Your task to perform on an android device: star an email in the gmail app Image 0: 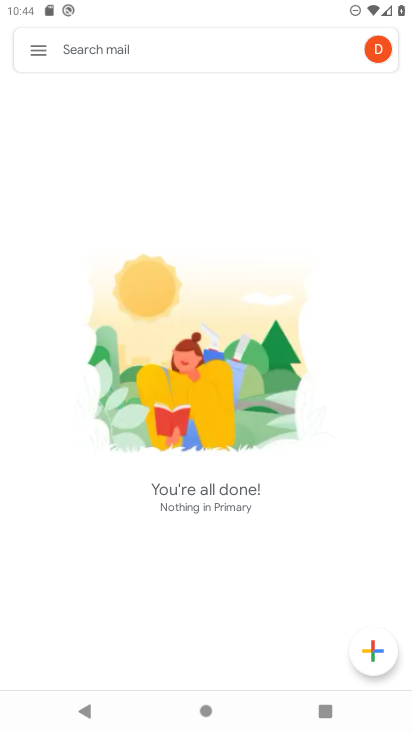
Step 0: press home button
Your task to perform on an android device: star an email in the gmail app Image 1: 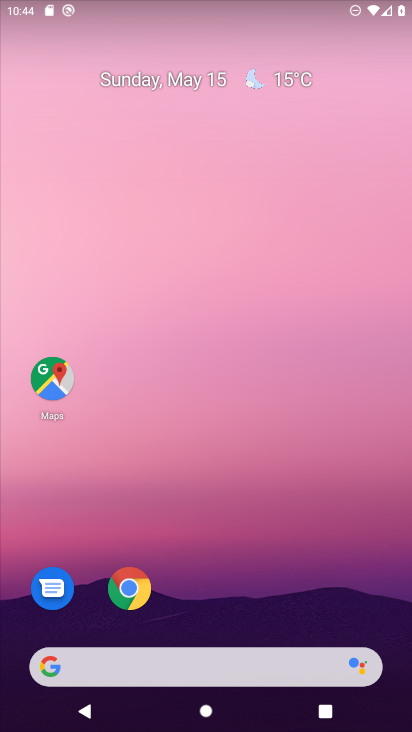
Step 1: drag from (232, 635) to (287, 109)
Your task to perform on an android device: star an email in the gmail app Image 2: 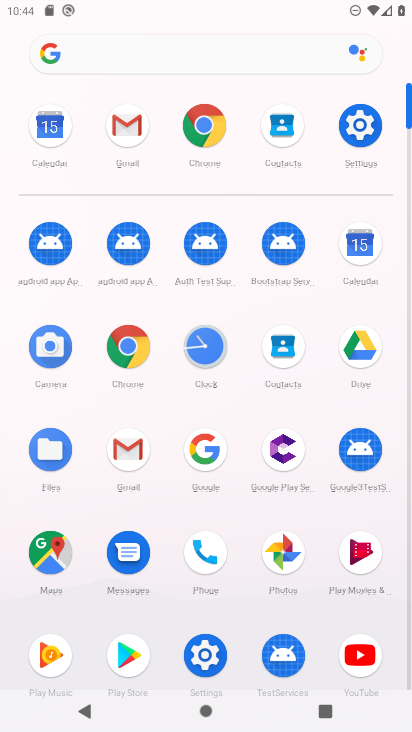
Step 2: click (134, 460)
Your task to perform on an android device: star an email in the gmail app Image 3: 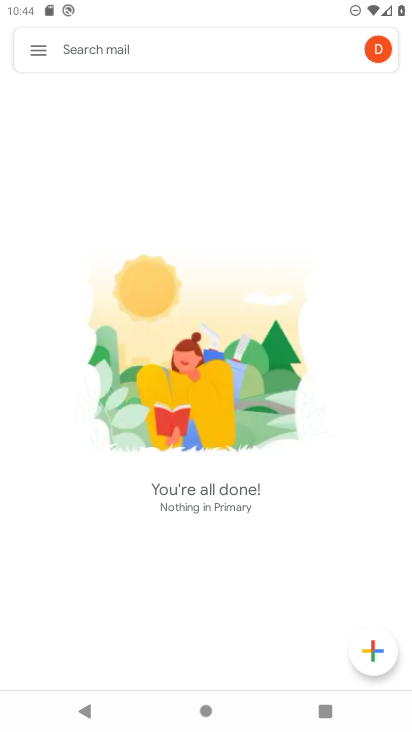
Step 3: click (42, 52)
Your task to perform on an android device: star an email in the gmail app Image 4: 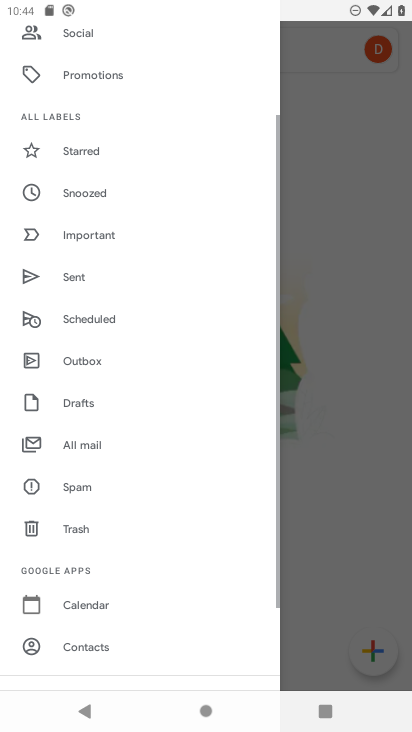
Step 4: click (83, 442)
Your task to perform on an android device: star an email in the gmail app Image 5: 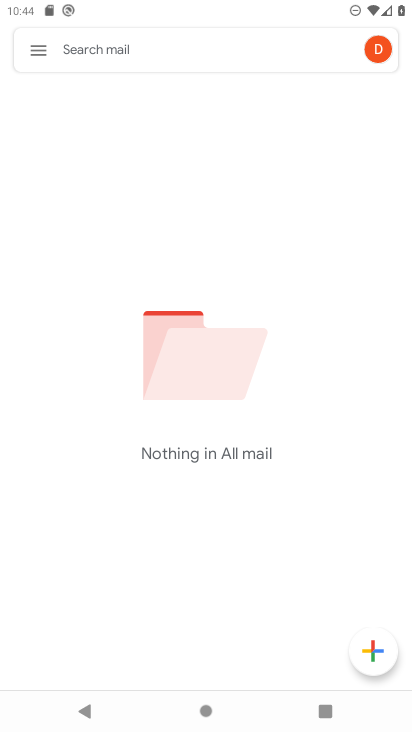
Step 5: task complete